Your task to perform on an android device: Open Yahoo.com Image 0: 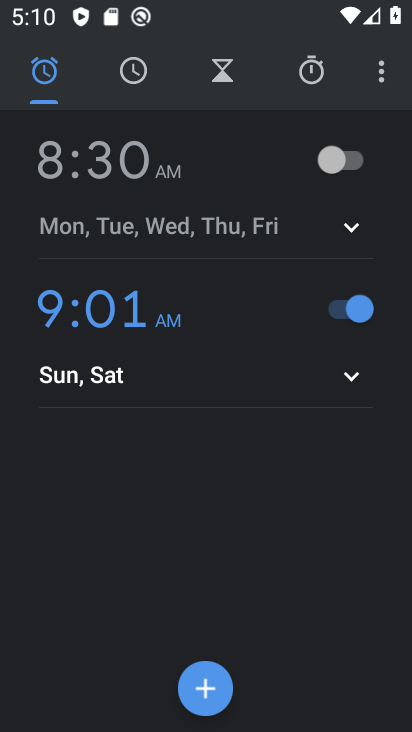
Step 0: press home button
Your task to perform on an android device: Open Yahoo.com Image 1: 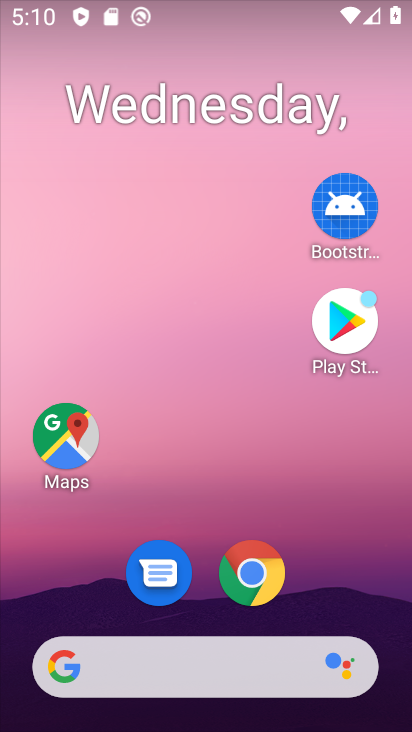
Step 1: click (249, 558)
Your task to perform on an android device: Open Yahoo.com Image 2: 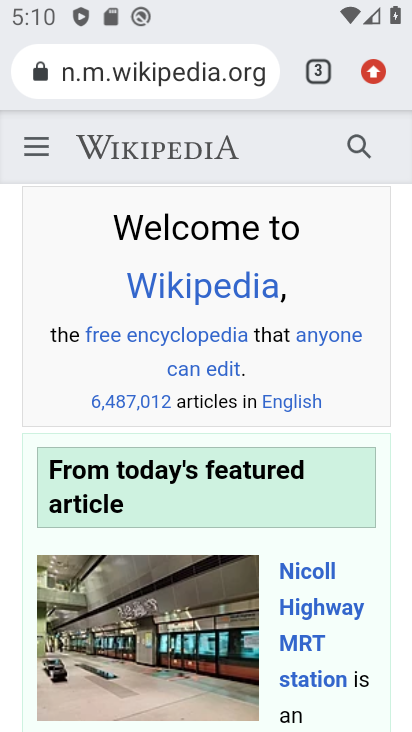
Step 2: click (366, 64)
Your task to perform on an android device: Open Yahoo.com Image 3: 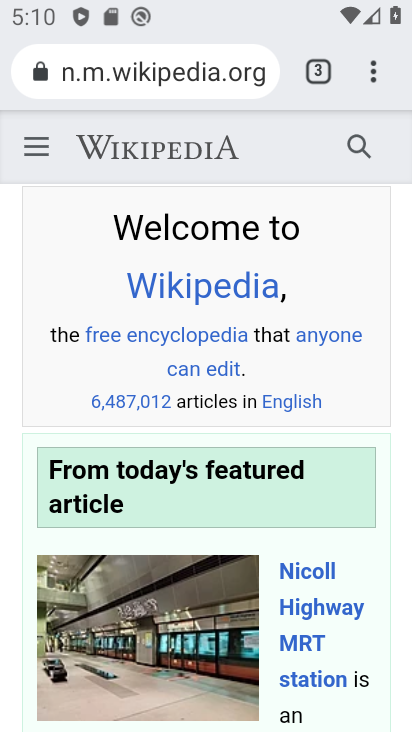
Step 3: click (366, 64)
Your task to perform on an android device: Open Yahoo.com Image 4: 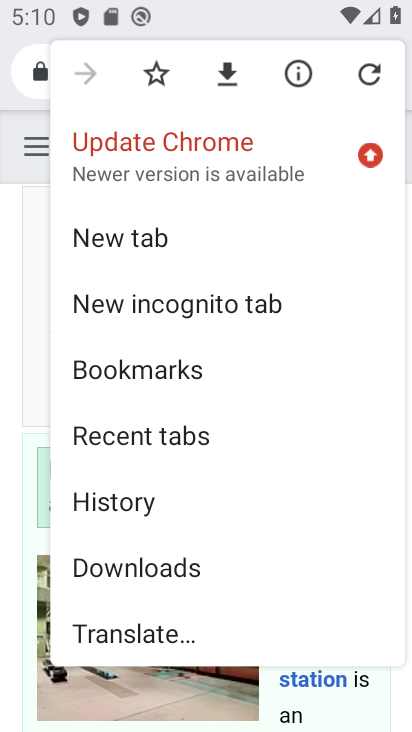
Step 4: click (175, 237)
Your task to perform on an android device: Open Yahoo.com Image 5: 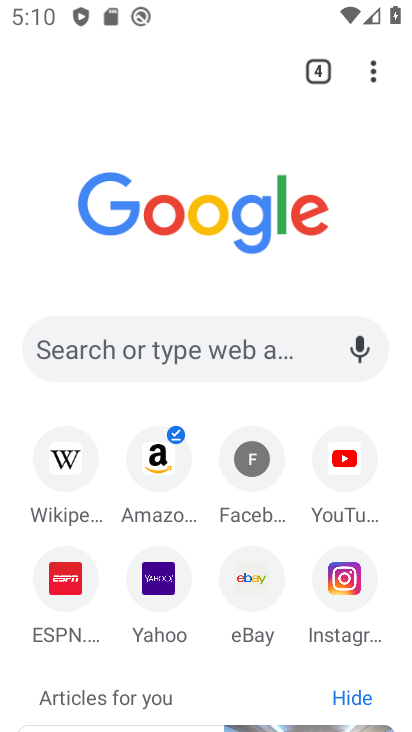
Step 5: click (158, 598)
Your task to perform on an android device: Open Yahoo.com Image 6: 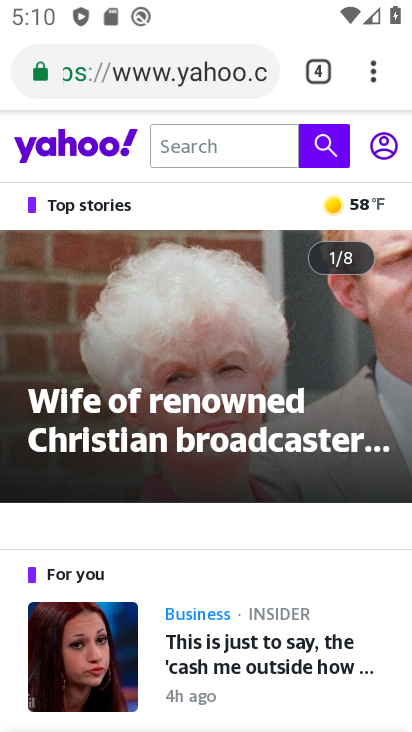
Step 6: task complete